Your task to perform on an android device: Open battery settings Image 0: 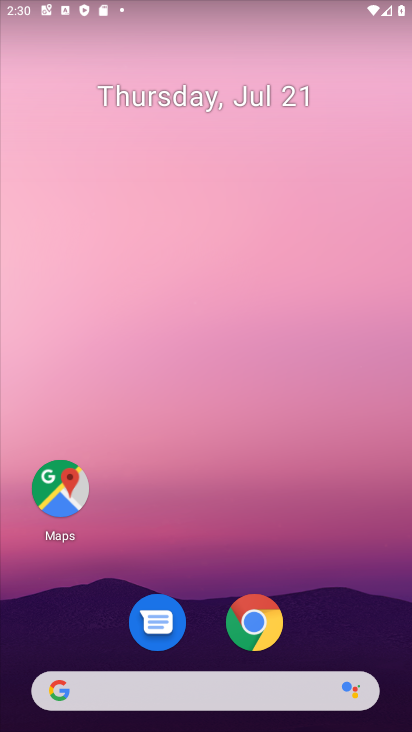
Step 0: drag from (289, 488) to (282, 172)
Your task to perform on an android device: Open battery settings Image 1: 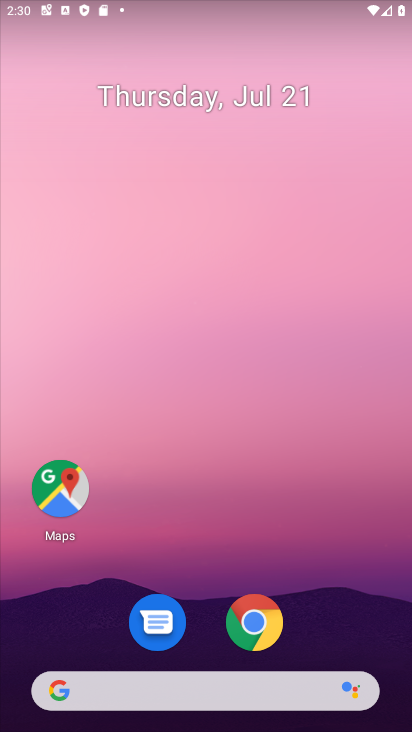
Step 1: drag from (231, 722) to (257, 118)
Your task to perform on an android device: Open battery settings Image 2: 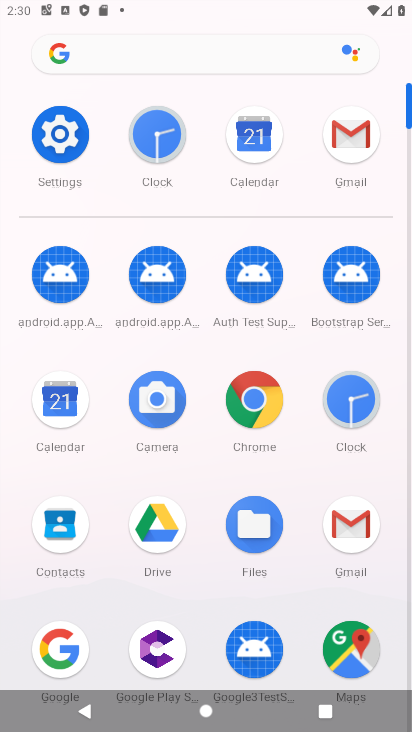
Step 2: click (72, 151)
Your task to perform on an android device: Open battery settings Image 3: 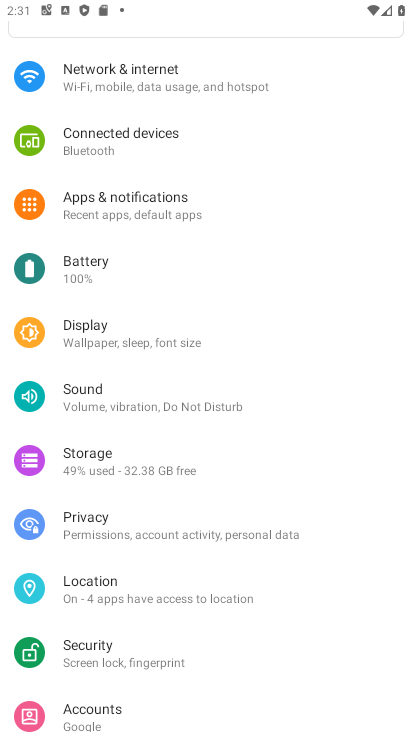
Step 3: click (99, 262)
Your task to perform on an android device: Open battery settings Image 4: 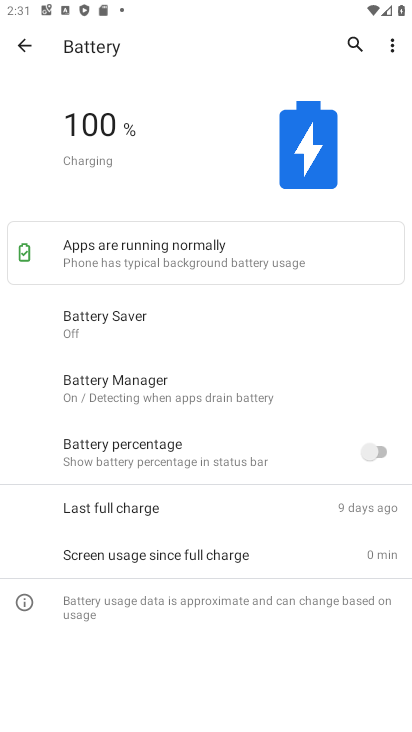
Step 4: task complete